Your task to perform on an android device: Go to wifi settings Image 0: 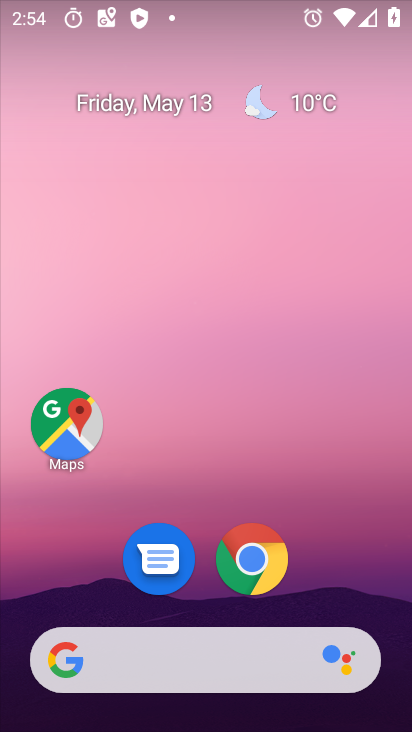
Step 0: drag from (207, 614) to (237, 265)
Your task to perform on an android device: Go to wifi settings Image 1: 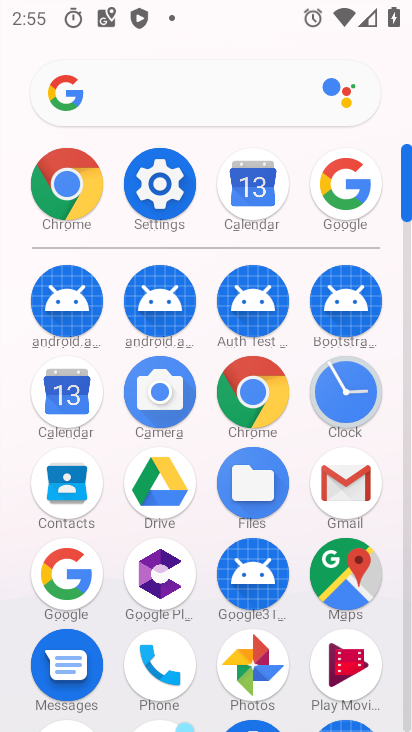
Step 1: click (171, 180)
Your task to perform on an android device: Go to wifi settings Image 2: 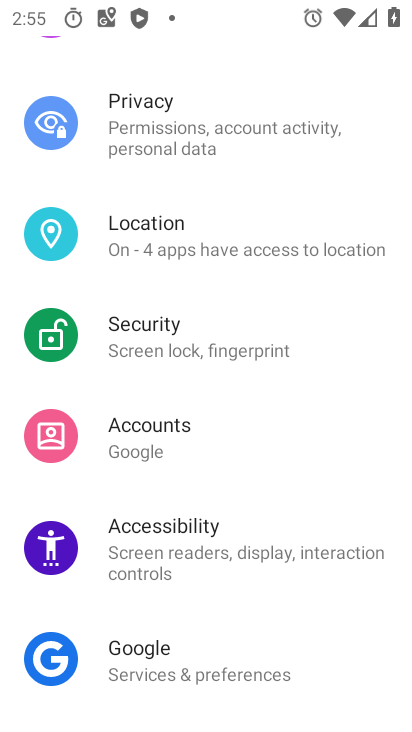
Step 2: drag from (206, 285) to (245, 589)
Your task to perform on an android device: Go to wifi settings Image 3: 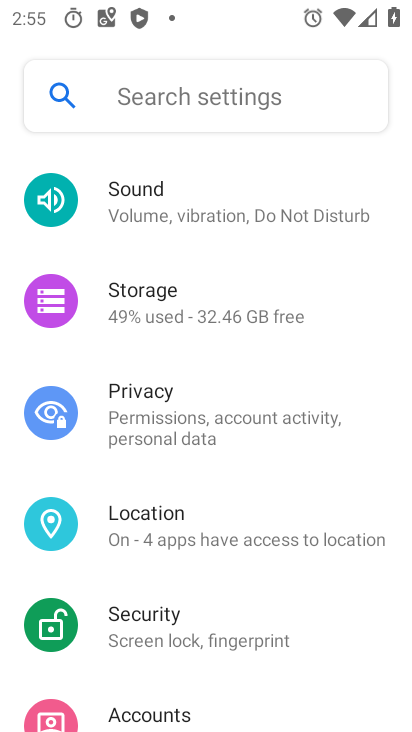
Step 3: drag from (168, 247) to (218, 584)
Your task to perform on an android device: Go to wifi settings Image 4: 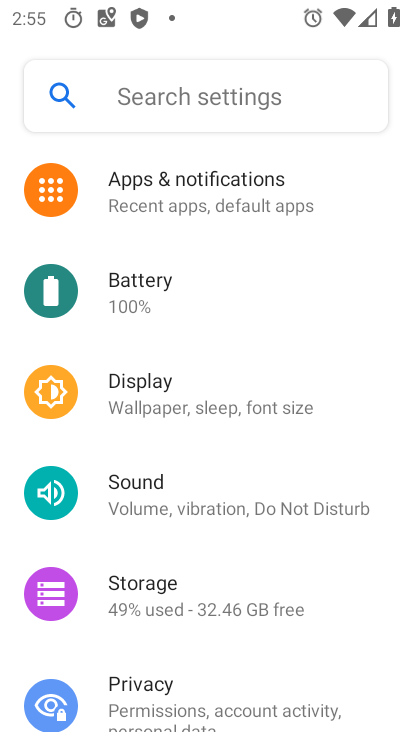
Step 4: click (249, 575)
Your task to perform on an android device: Go to wifi settings Image 5: 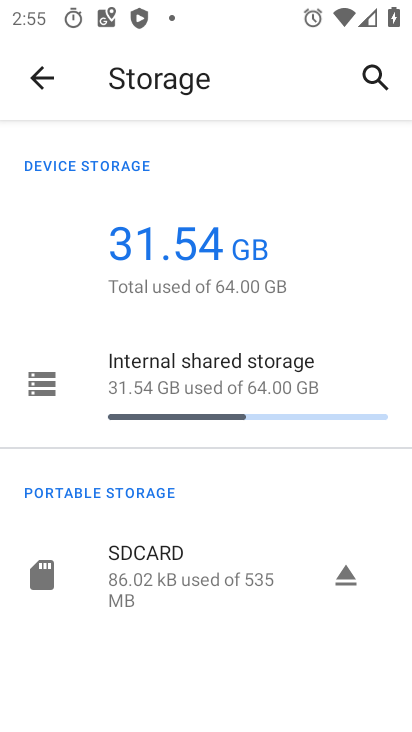
Step 5: click (29, 84)
Your task to perform on an android device: Go to wifi settings Image 6: 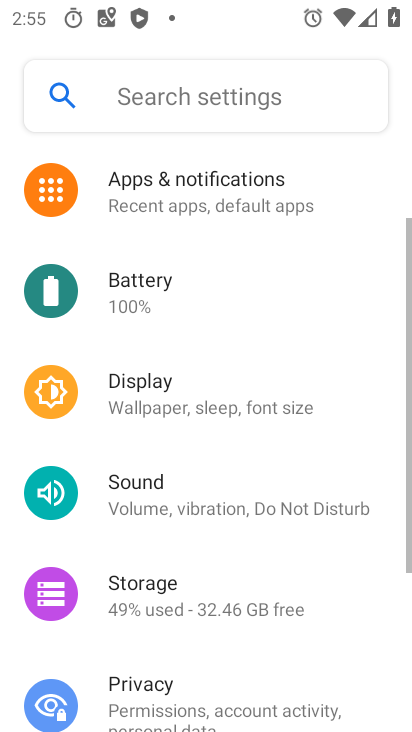
Step 6: drag from (217, 254) to (247, 500)
Your task to perform on an android device: Go to wifi settings Image 7: 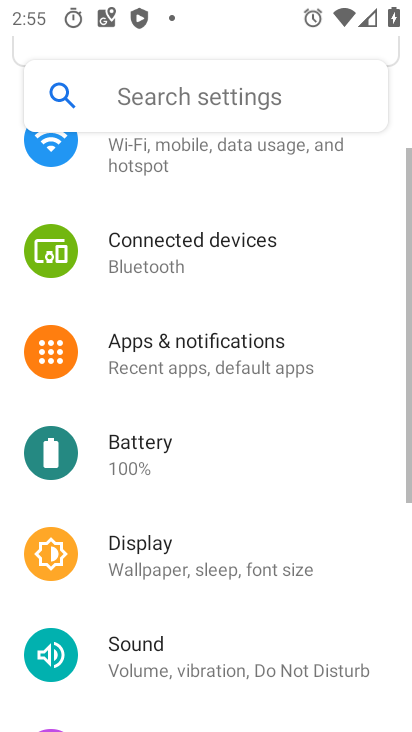
Step 7: drag from (247, 258) to (254, 552)
Your task to perform on an android device: Go to wifi settings Image 8: 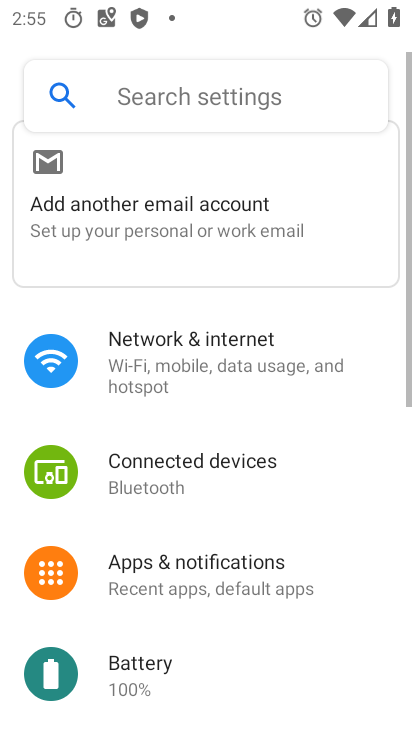
Step 8: drag from (229, 274) to (245, 552)
Your task to perform on an android device: Go to wifi settings Image 9: 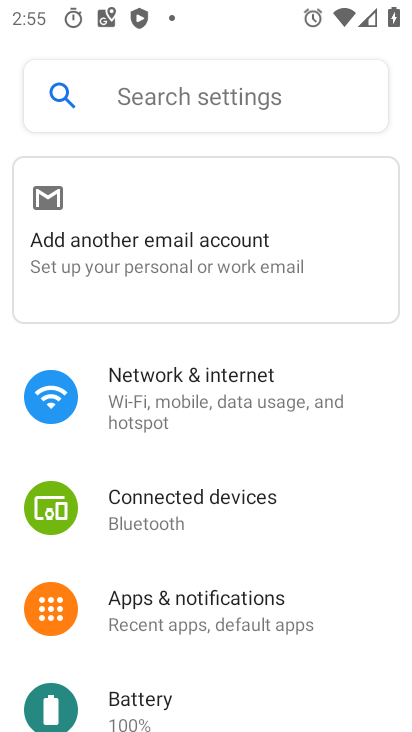
Step 9: click (195, 367)
Your task to perform on an android device: Go to wifi settings Image 10: 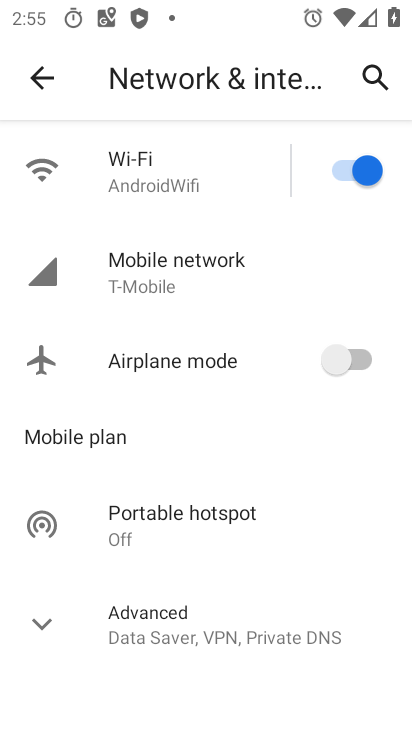
Step 10: drag from (209, 478) to (217, 200)
Your task to perform on an android device: Go to wifi settings Image 11: 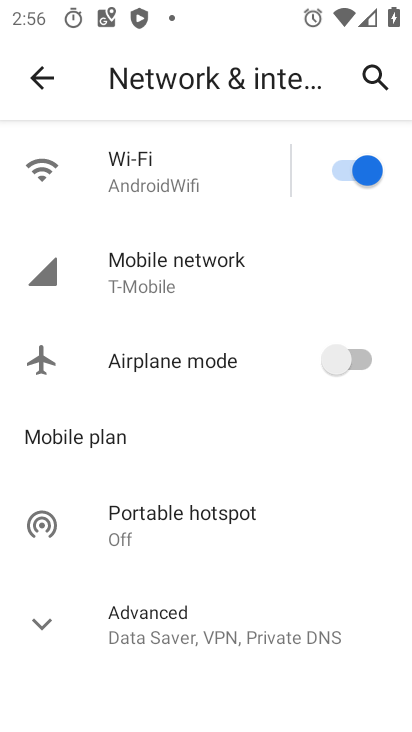
Step 11: click (181, 173)
Your task to perform on an android device: Go to wifi settings Image 12: 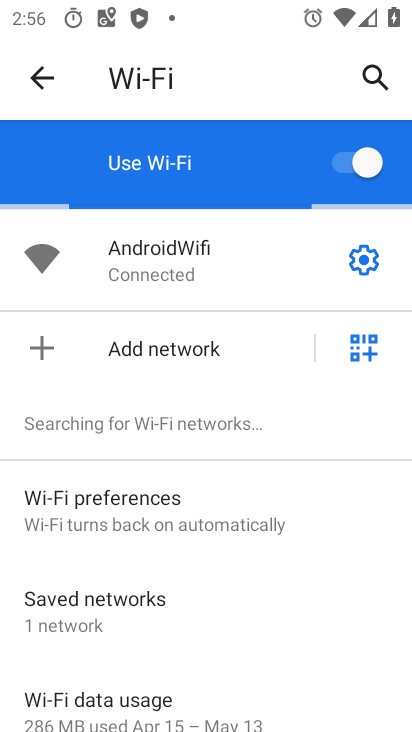
Step 12: task complete